Your task to perform on an android device: turn vacation reply on in the gmail app Image 0: 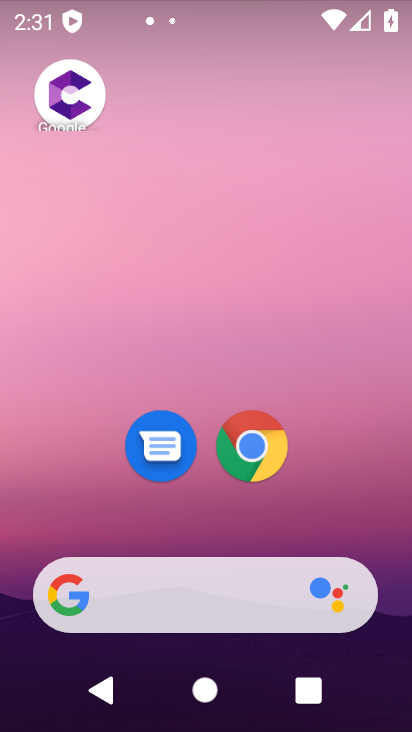
Step 0: drag from (336, 444) to (275, 11)
Your task to perform on an android device: turn vacation reply on in the gmail app Image 1: 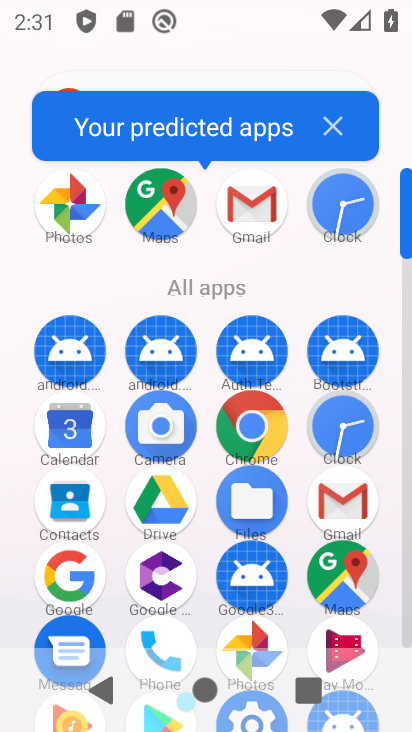
Step 1: click (243, 216)
Your task to perform on an android device: turn vacation reply on in the gmail app Image 2: 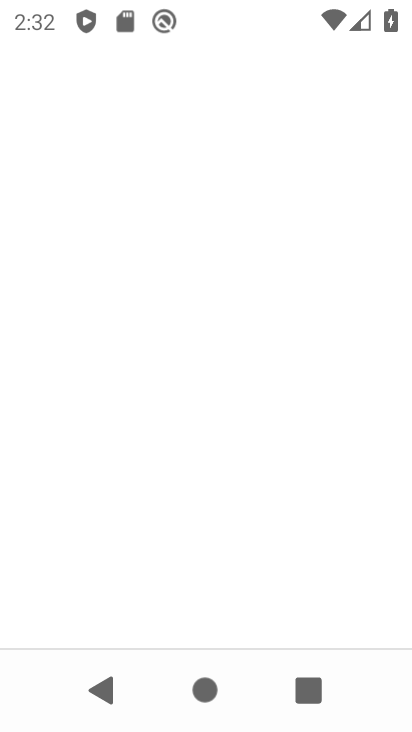
Step 2: task complete